Your task to perform on an android device: Go to Yahoo.com Image 0: 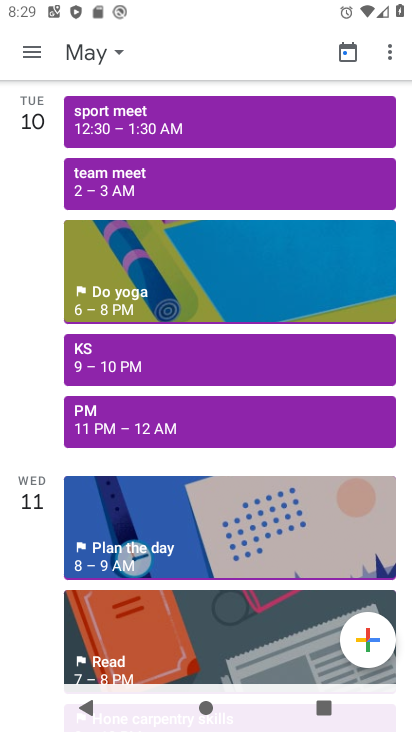
Step 0: press home button
Your task to perform on an android device: Go to Yahoo.com Image 1: 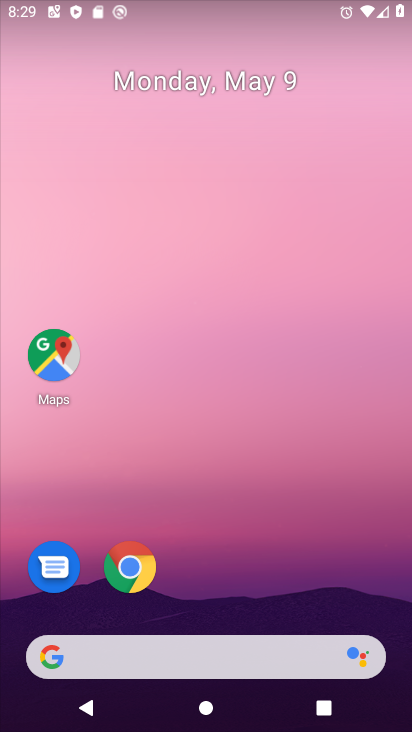
Step 1: drag from (349, 582) to (347, 260)
Your task to perform on an android device: Go to Yahoo.com Image 2: 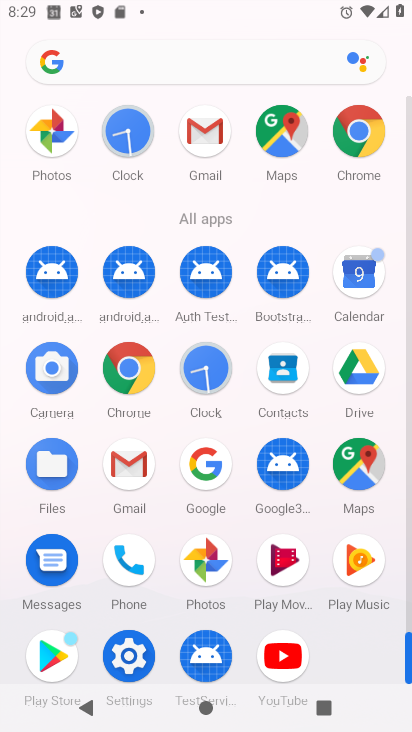
Step 2: click (141, 370)
Your task to perform on an android device: Go to Yahoo.com Image 3: 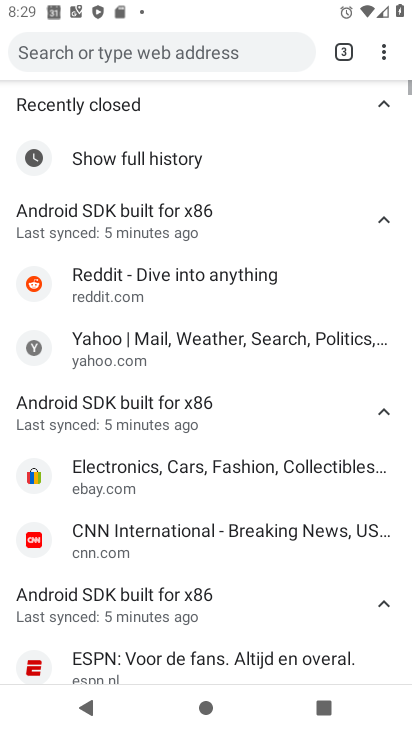
Step 3: click (206, 50)
Your task to perform on an android device: Go to Yahoo.com Image 4: 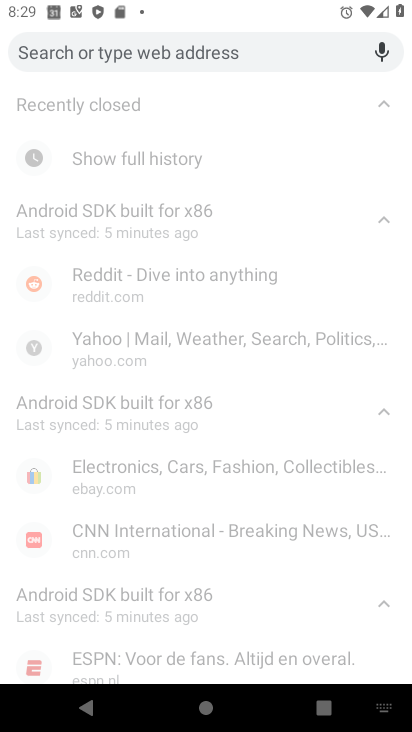
Step 4: type "yahoo.com"
Your task to perform on an android device: Go to Yahoo.com Image 5: 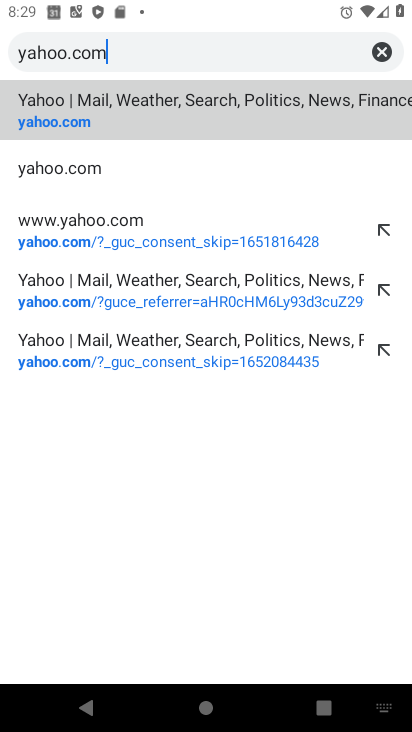
Step 5: click (179, 117)
Your task to perform on an android device: Go to Yahoo.com Image 6: 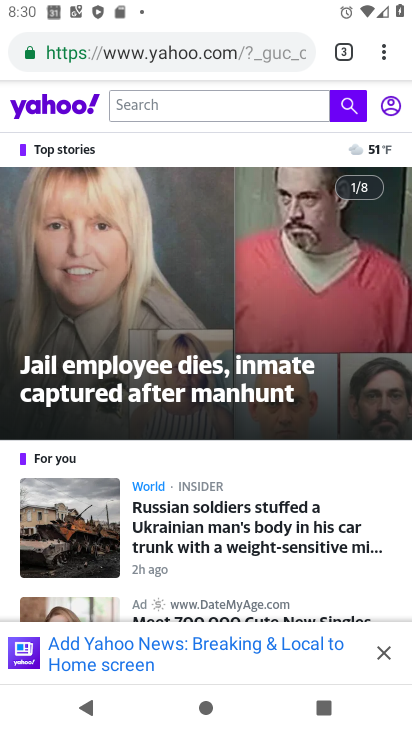
Step 6: task complete